Your task to perform on an android device: turn off airplane mode Image 0: 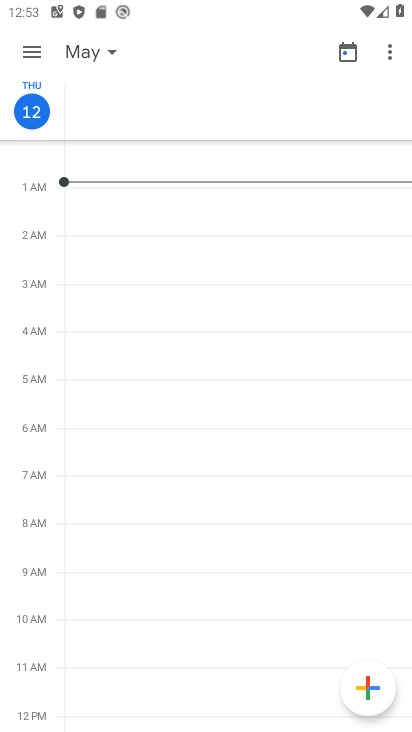
Step 0: press home button
Your task to perform on an android device: turn off airplane mode Image 1: 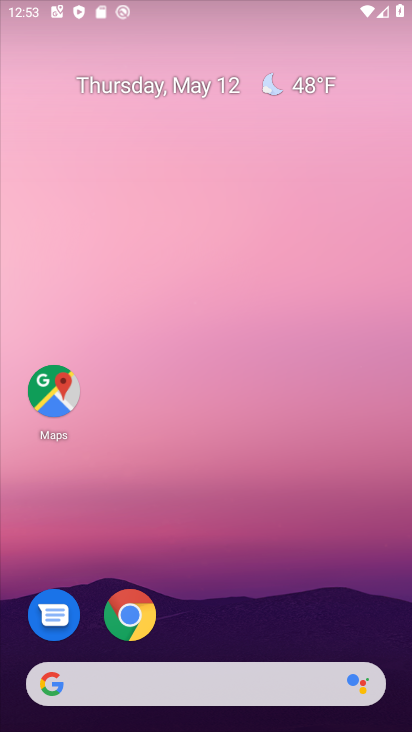
Step 1: drag from (262, 684) to (399, 40)
Your task to perform on an android device: turn off airplane mode Image 2: 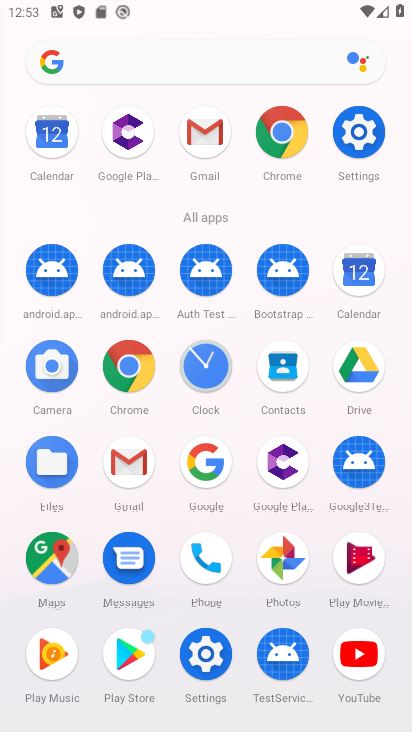
Step 2: click (359, 138)
Your task to perform on an android device: turn off airplane mode Image 3: 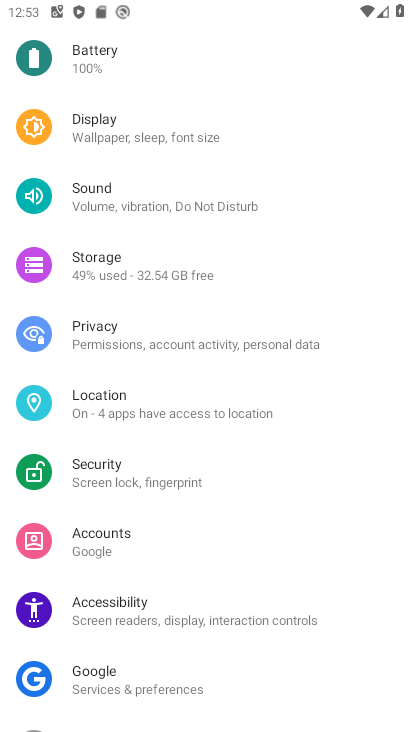
Step 3: drag from (359, 138) to (210, 726)
Your task to perform on an android device: turn off airplane mode Image 4: 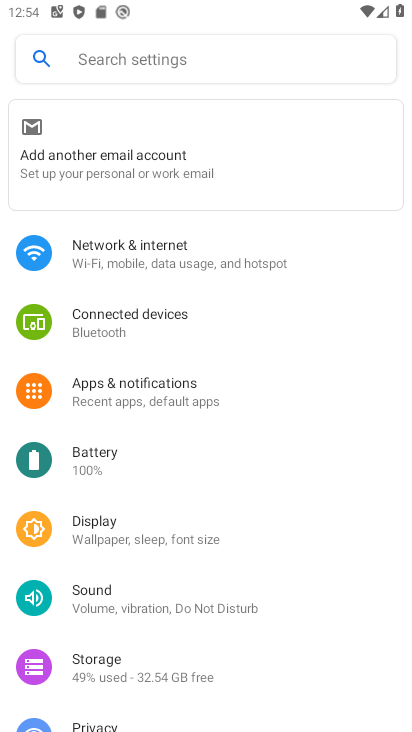
Step 4: click (211, 268)
Your task to perform on an android device: turn off airplane mode Image 5: 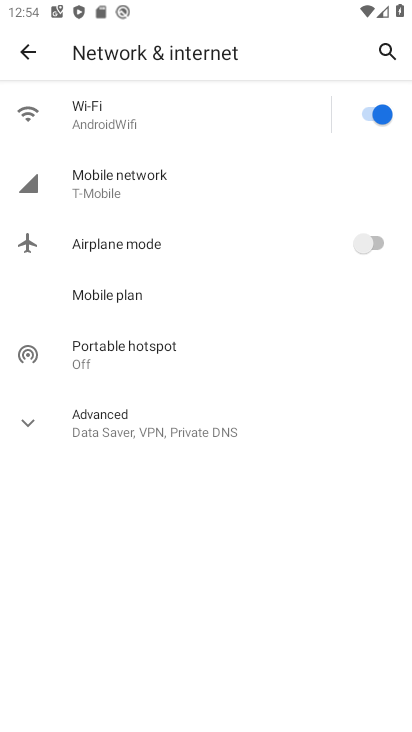
Step 5: task complete